Your task to perform on an android device: Toggle the flashlight Image 0: 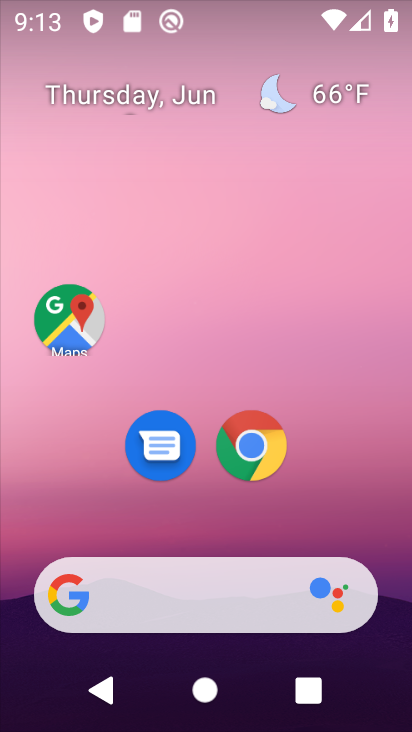
Step 0: drag from (210, 522) to (280, 0)
Your task to perform on an android device: Toggle the flashlight Image 1: 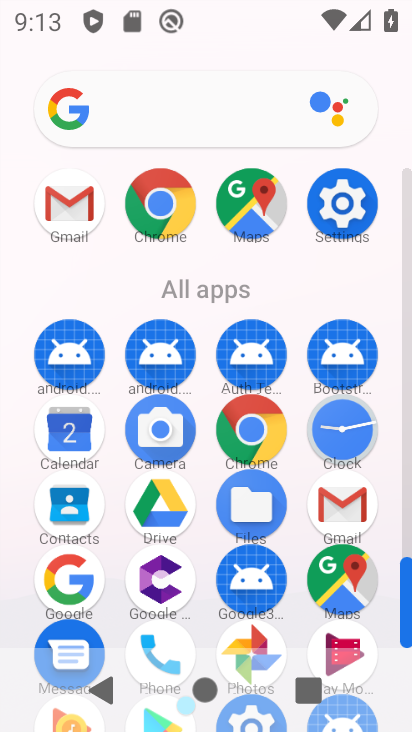
Step 1: click (333, 188)
Your task to perform on an android device: Toggle the flashlight Image 2: 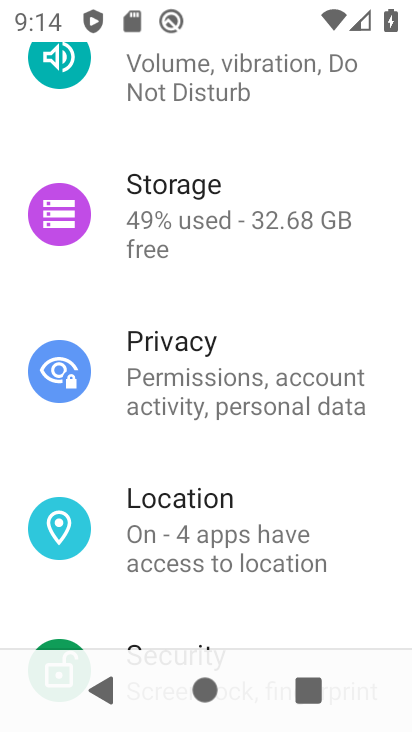
Step 2: task complete